Your task to perform on an android device: Go to Android settings Image 0: 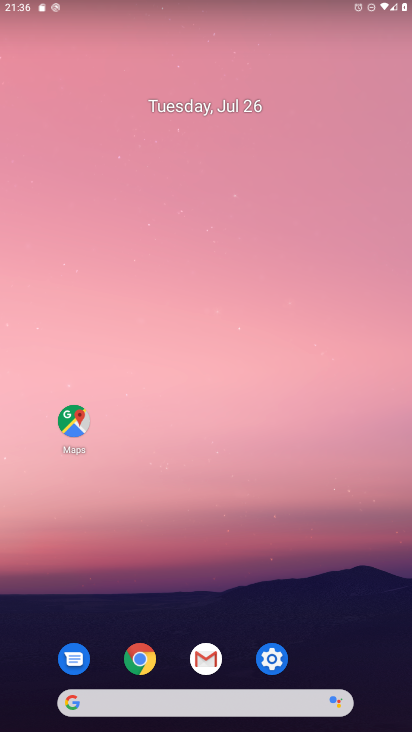
Step 0: click (268, 665)
Your task to perform on an android device: Go to Android settings Image 1: 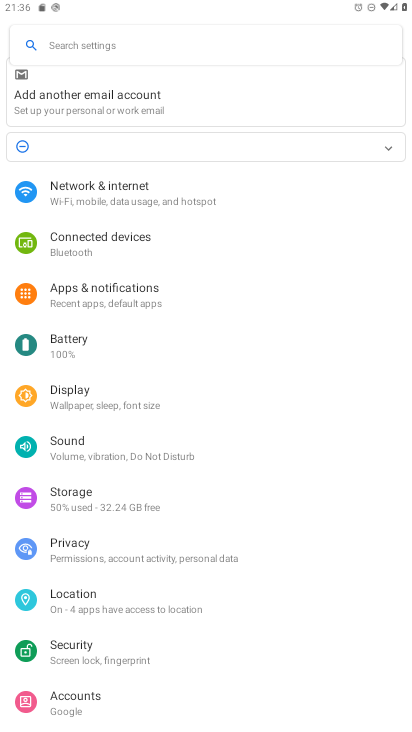
Step 1: click (101, 54)
Your task to perform on an android device: Go to Android settings Image 2: 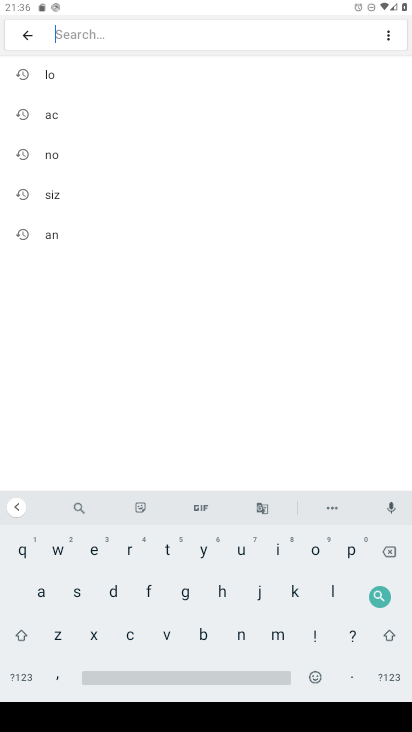
Step 2: click (77, 235)
Your task to perform on an android device: Go to Android settings Image 3: 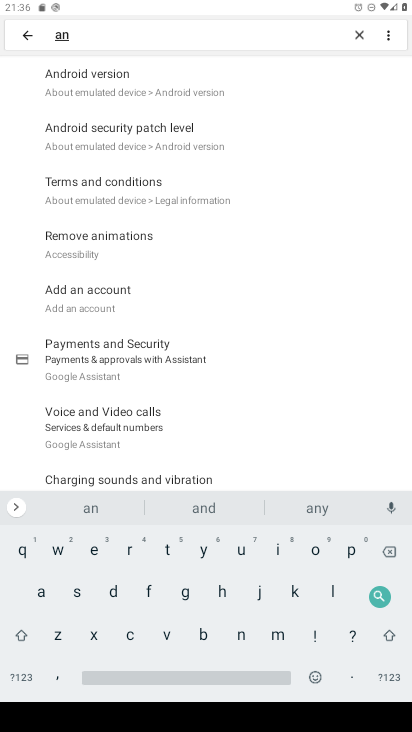
Step 3: click (128, 86)
Your task to perform on an android device: Go to Android settings Image 4: 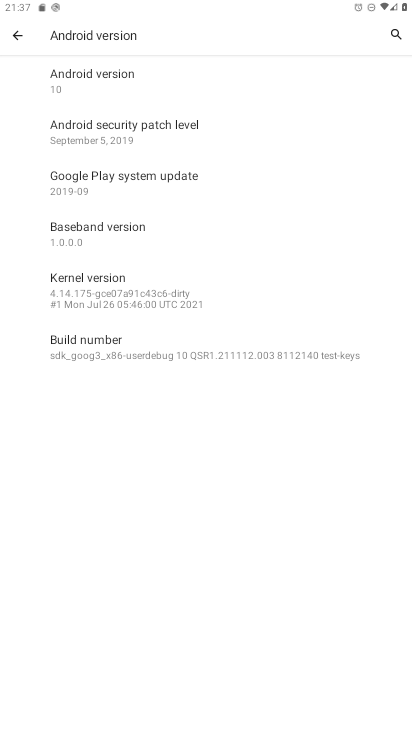
Step 4: task complete